Your task to perform on an android device: turn on the 12-hour format for clock Image 0: 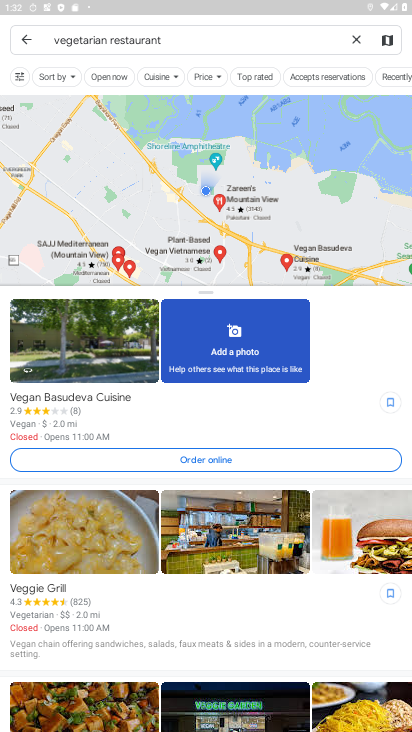
Step 0: press home button
Your task to perform on an android device: turn on the 12-hour format for clock Image 1: 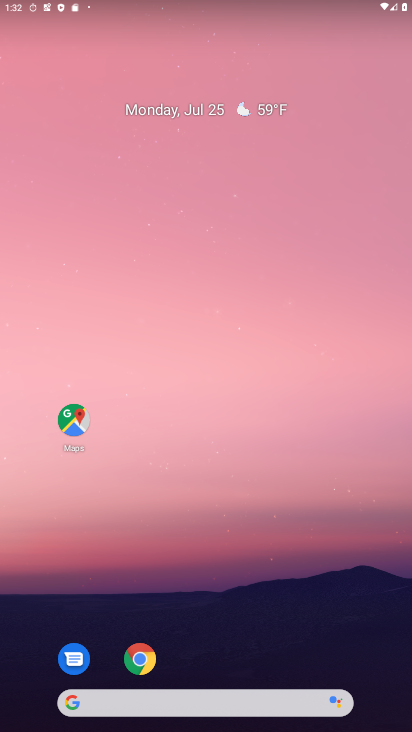
Step 1: drag from (256, 650) to (250, 105)
Your task to perform on an android device: turn on the 12-hour format for clock Image 2: 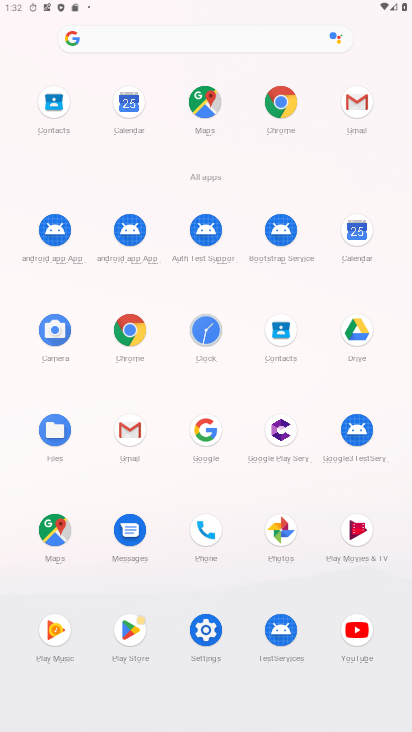
Step 2: click (205, 335)
Your task to perform on an android device: turn on the 12-hour format for clock Image 3: 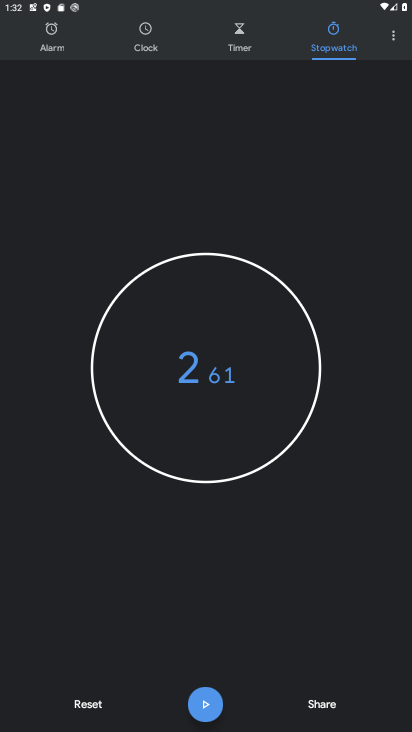
Step 3: click (395, 42)
Your task to perform on an android device: turn on the 12-hour format for clock Image 4: 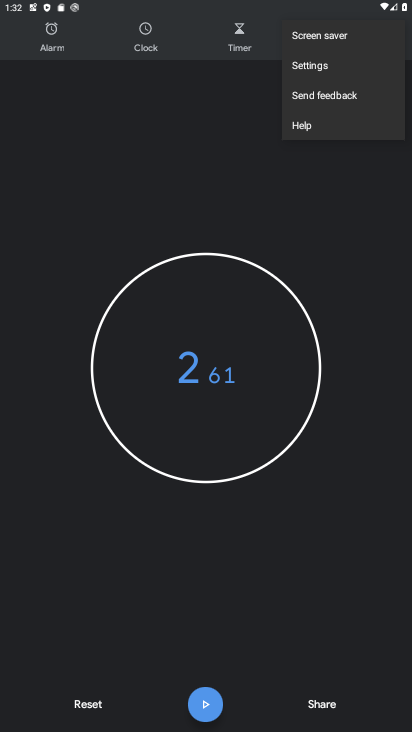
Step 4: click (326, 75)
Your task to perform on an android device: turn on the 12-hour format for clock Image 5: 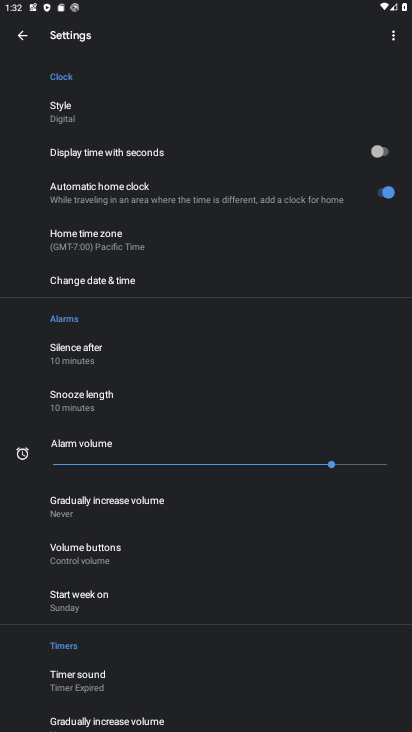
Step 5: click (106, 286)
Your task to perform on an android device: turn on the 12-hour format for clock Image 6: 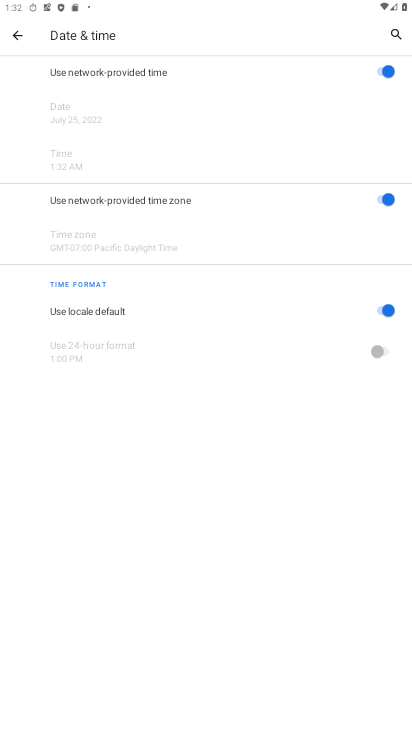
Step 6: task complete